Your task to perform on an android device: toggle sleep mode Image 0: 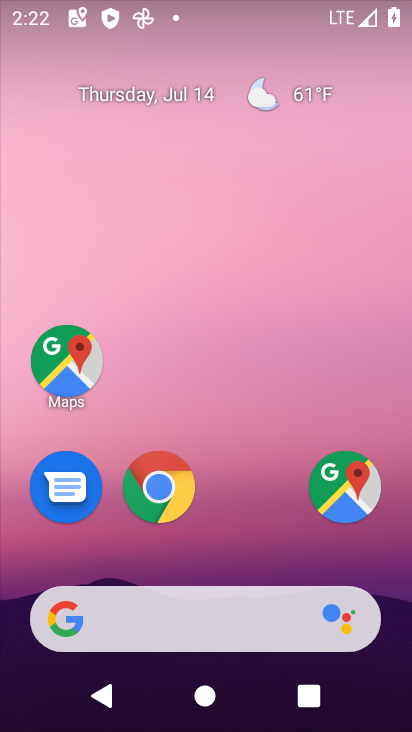
Step 0: drag from (257, 543) to (281, 146)
Your task to perform on an android device: toggle sleep mode Image 1: 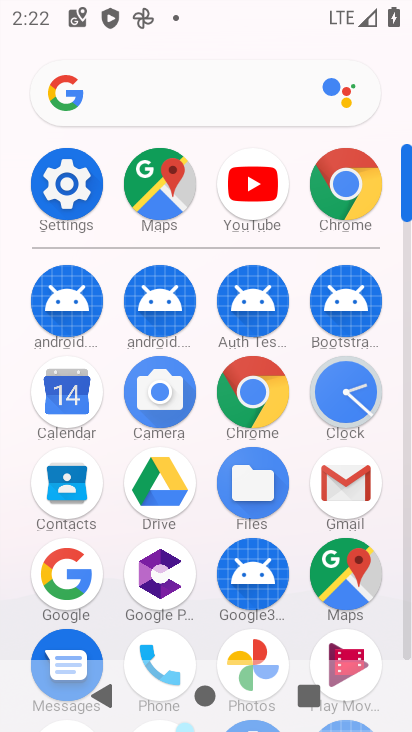
Step 1: click (69, 199)
Your task to perform on an android device: toggle sleep mode Image 2: 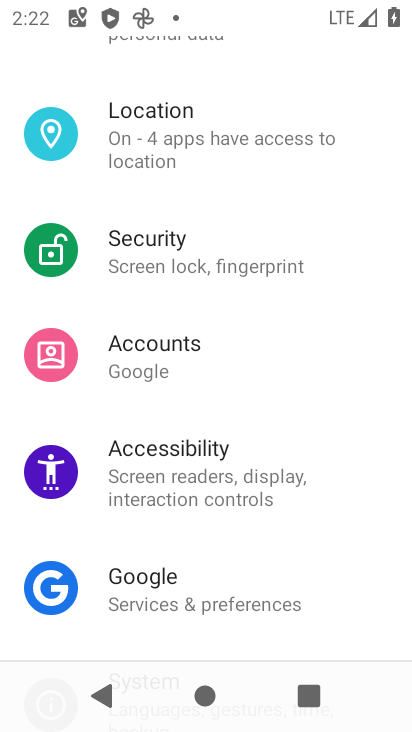
Step 2: drag from (366, 311) to (366, 414)
Your task to perform on an android device: toggle sleep mode Image 3: 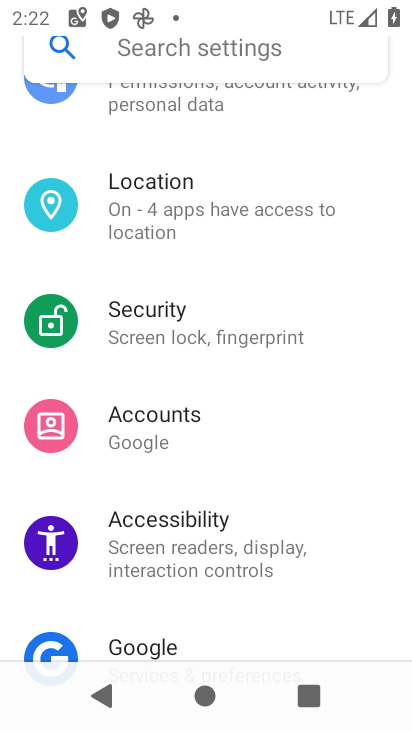
Step 3: drag from (356, 297) to (357, 405)
Your task to perform on an android device: toggle sleep mode Image 4: 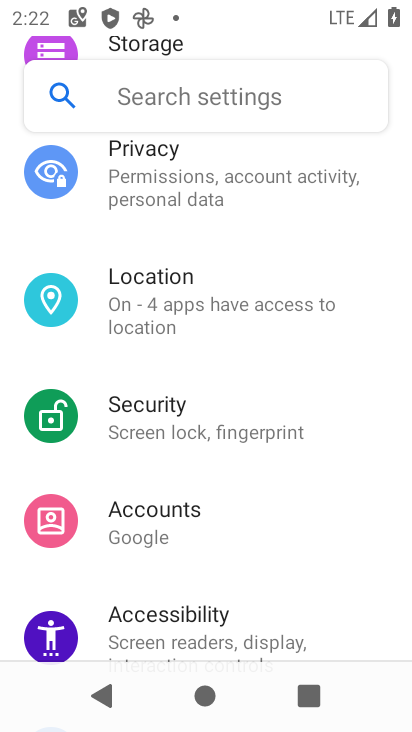
Step 4: drag from (355, 280) to (353, 398)
Your task to perform on an android device: toggle sleep mode Image 5: 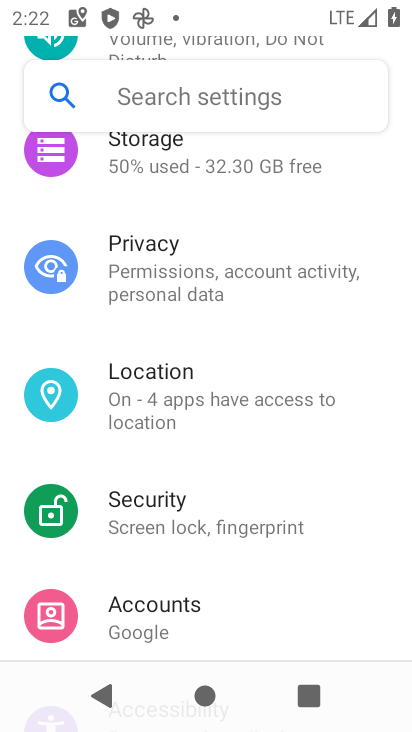
Step 5: drag from (354, 307) to (356, 427)
Your task to perform on an android device: toggle sleep mode Image 6: 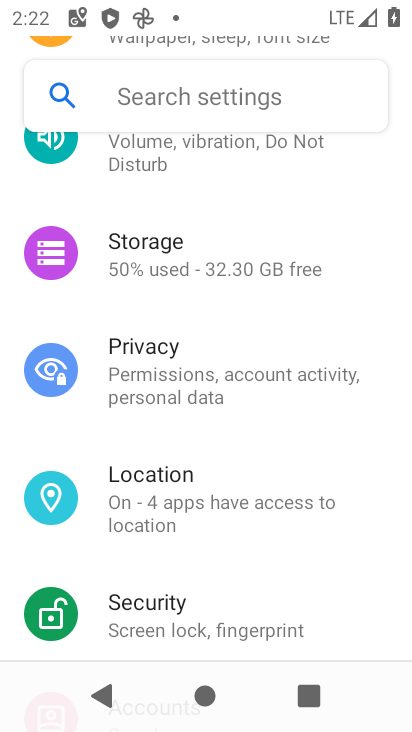
Step 6: drag from (359, 298) to (358, 407)
Your task to perform on an android device: toggle sleep mode Image 7: 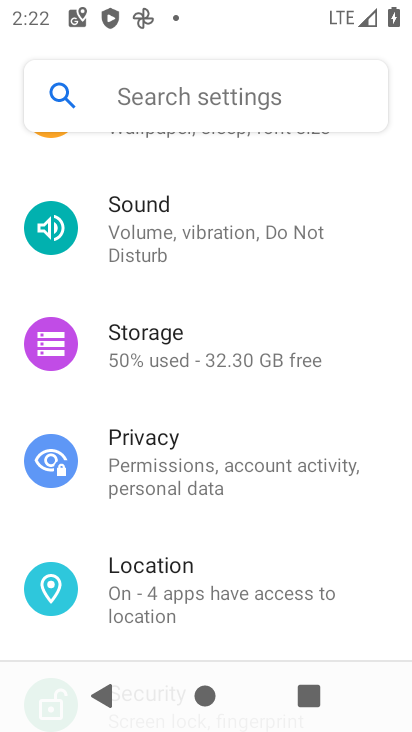
Step 7: drag from (365, 293) to (376, 456)
Your task to perform on an android device: toggle sleep mode Image 8: 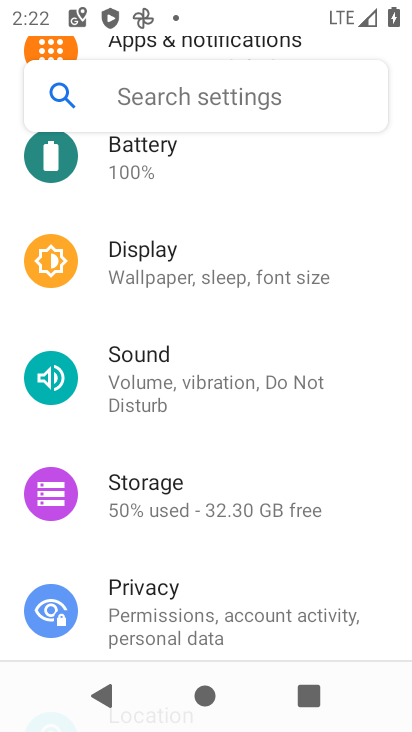
Step 8: drag from (358, 292) to (364, 455)
Your task to perform on an android device: toggle sleep mode Image 9: 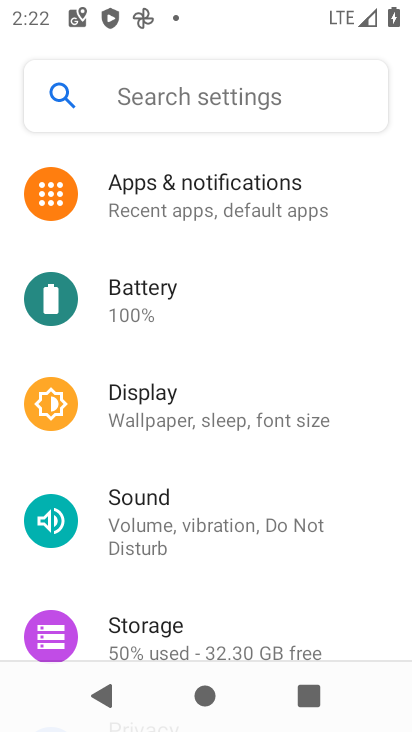
Step 9: drag from (356, 308) to (356, 421)
Your task to perform on an android device: toggle sleep mode Image 10: 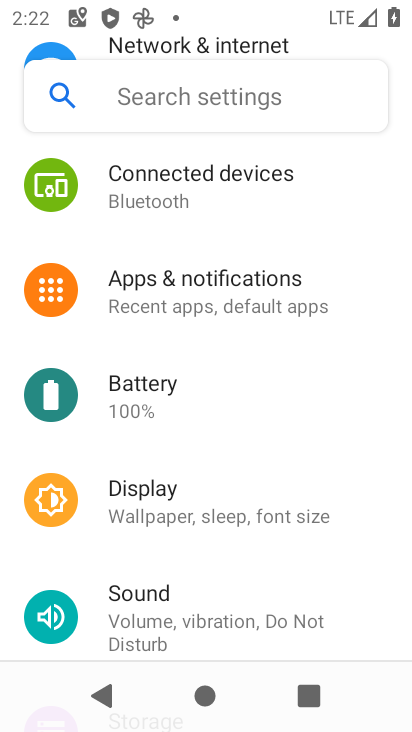
Step 10: drag from (351, 315) to (353, 401)
Your task to perform on an android device: toggle sleep mode Image 11: 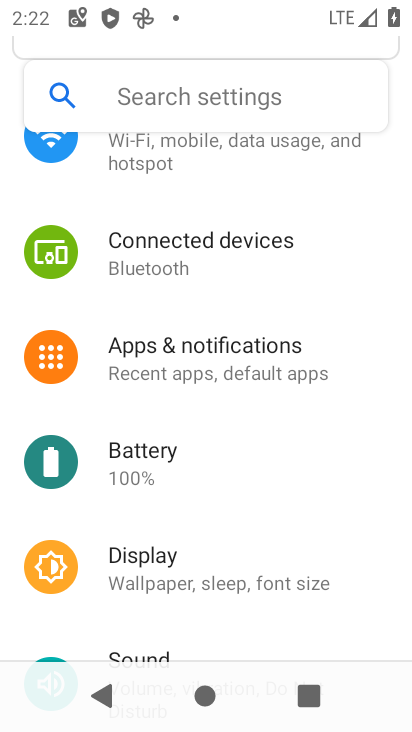
Step 11: click (336, 545)
Your task to perform on an android device: toggle sleep mode Image 12: 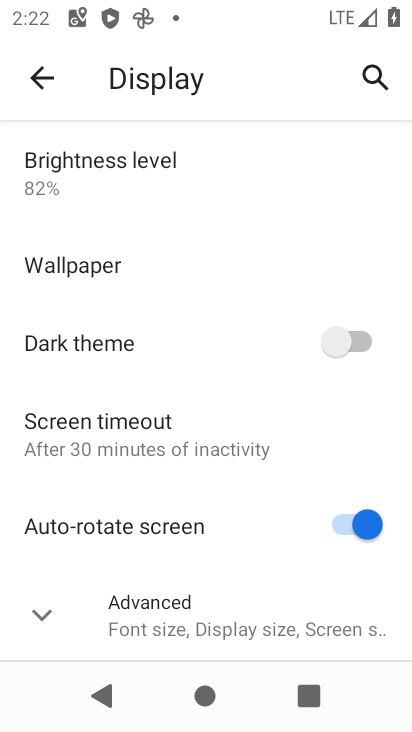
Step 12: drag from (289, 521) to (274, 399)
Your task to perform on an android device: toggle sleep mode Image 13: 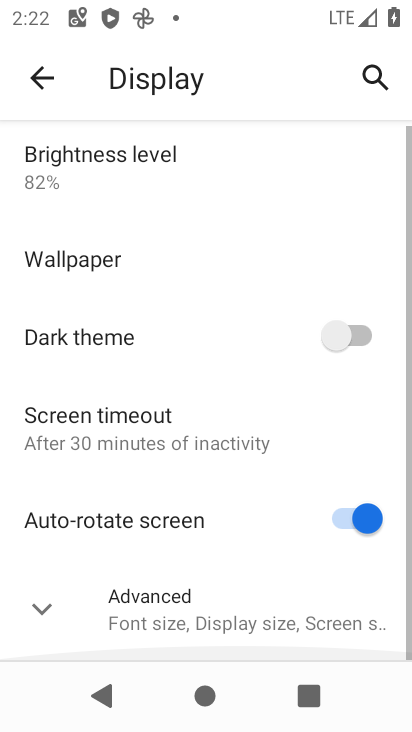
Step 13: click (279, 612)
Your task to perform on an android device: toggle sleep mode Image 14: 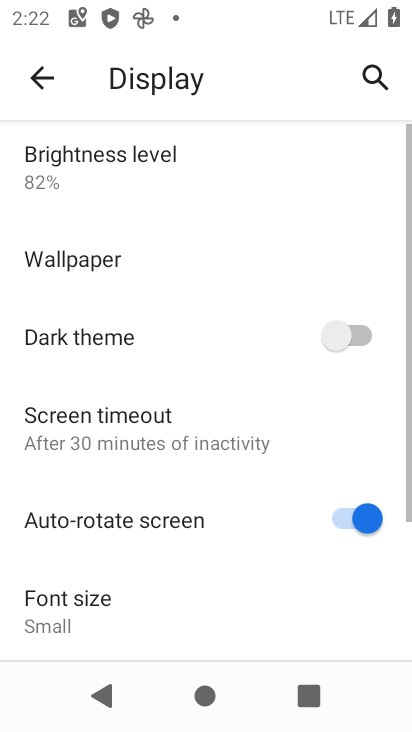
Step 14: task complete